Your task to perform on an android device: turn on airplane mode Image 0: 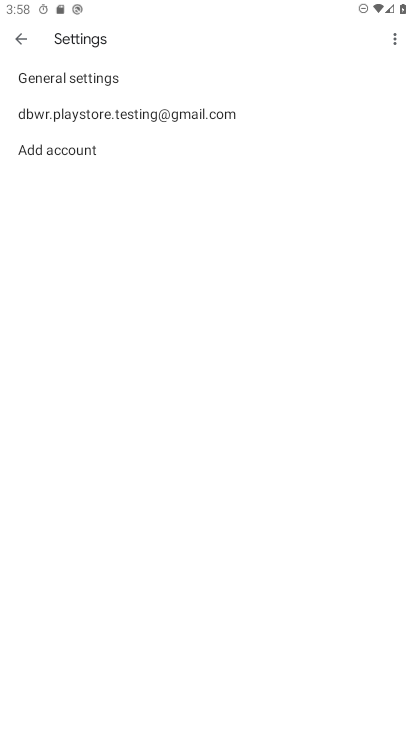
Step 0: press home button
Your task to perform on an android device: turn on airplane mode Image 1: 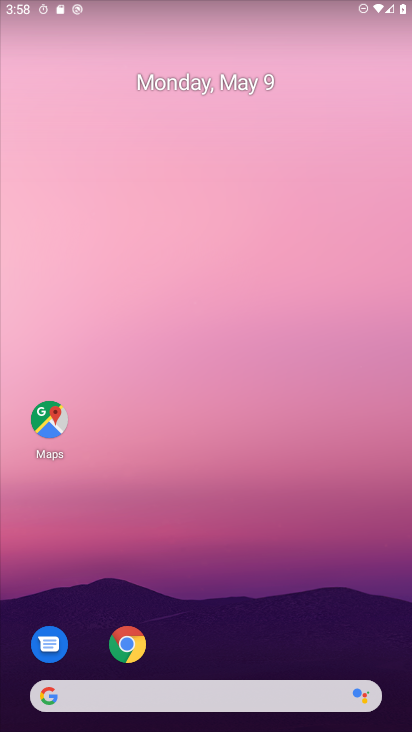
Step 1: drag from (228, 617) to (226, 162)
Your task to perform on an android device: turn on airplane mode Image 2: 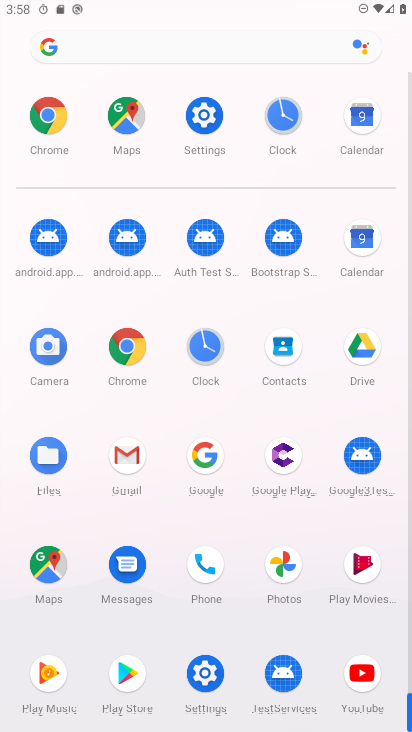
Step 2: click (198, 704)
Your task to perform on an android device: turn on airplane mode Image 3: 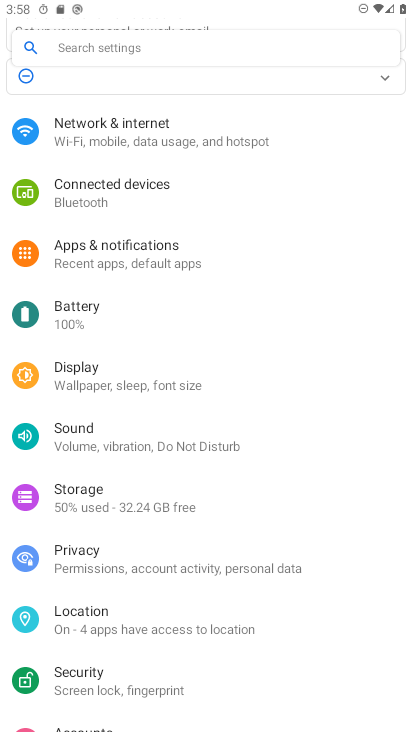
Step 3: click (106, 141)
Your task to perform on an android device: turn on airplane mode Image 4: 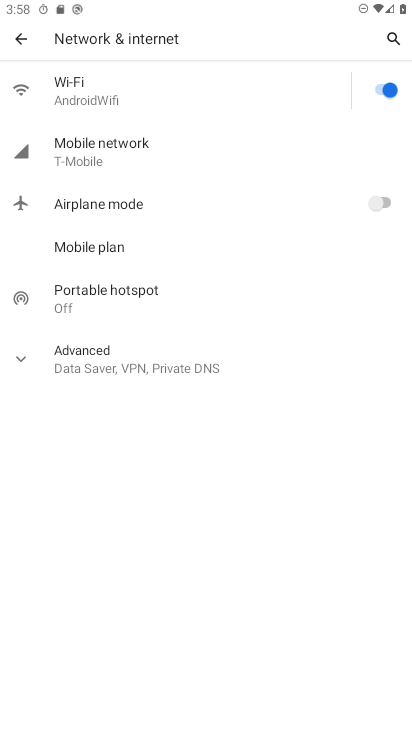
Step 4: click (391, 205)
Your task to perform on an android device: turn on airplane mode Image 5: 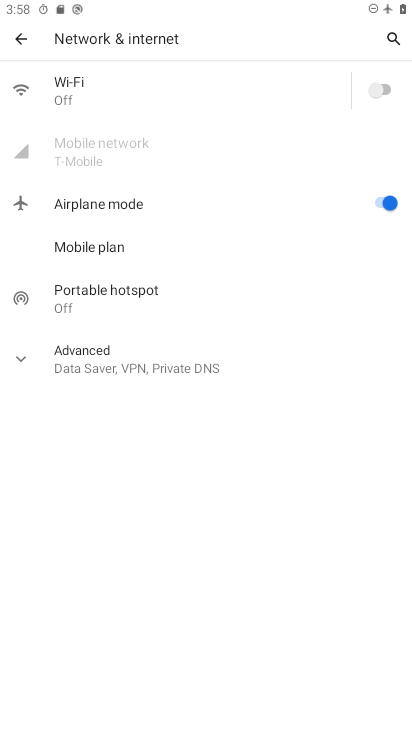
Step 5: task complete